Your task to perform on an android device: Open the stopwatch Image 0: 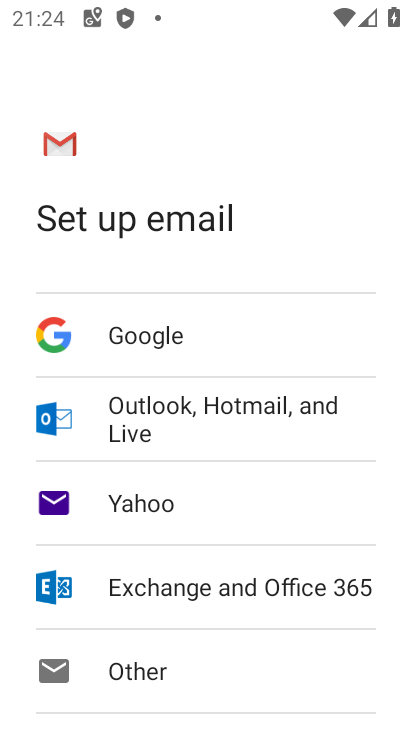
Step 0: press home button
Your task to perform on an android device: Open the stopwatch Image 1: 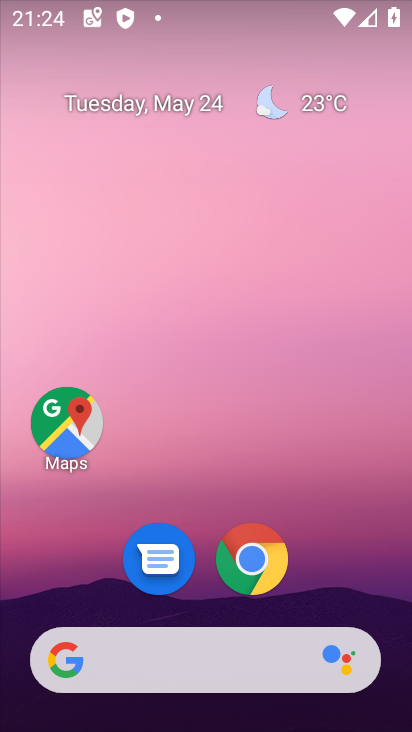
Step 1: drag from (331, 513) to (275, 50)
Your task to perform on an android device: Open the stopwatch Image 2: 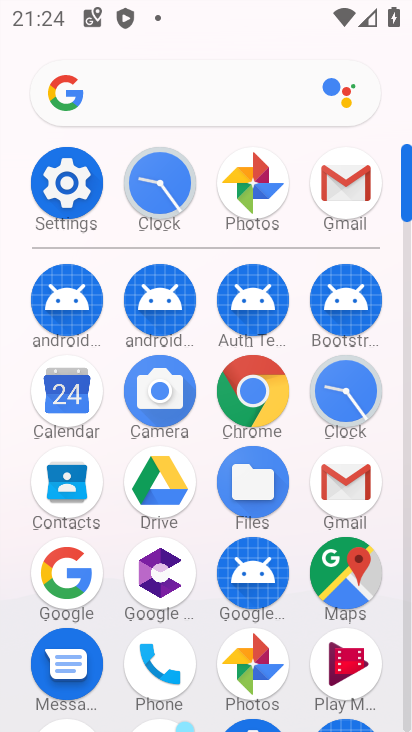
Step 2: click (163, 182)
Your task to perform on an android device: Open the stopwatch Image 3: 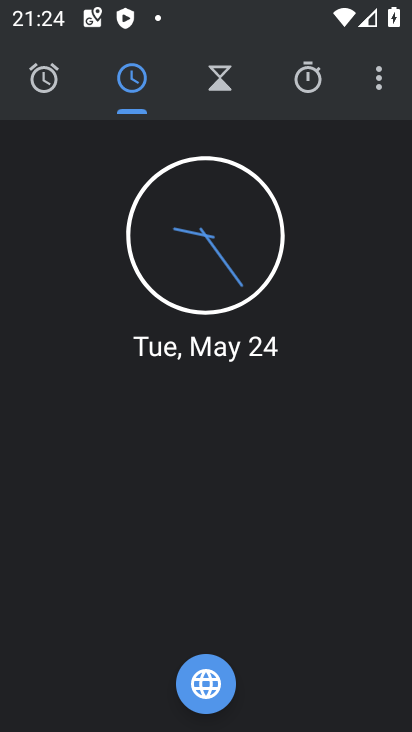
Step 3: click (291, 80)
Your task to perform on an android device: Open the stopwatch Image 4: 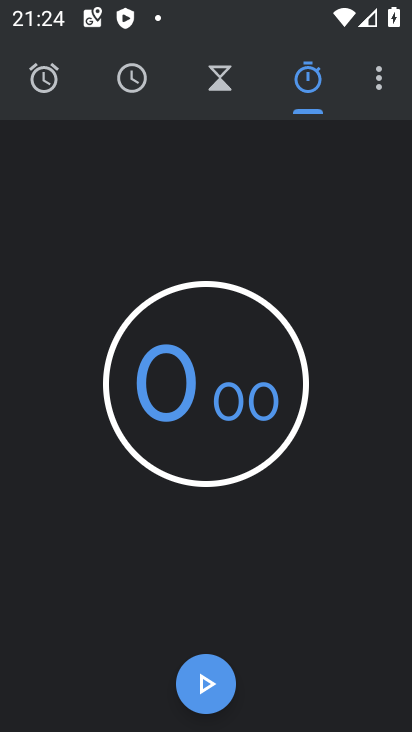
Step 4: task complete